Your task to perform on an android device: Open my contact list Image 0: 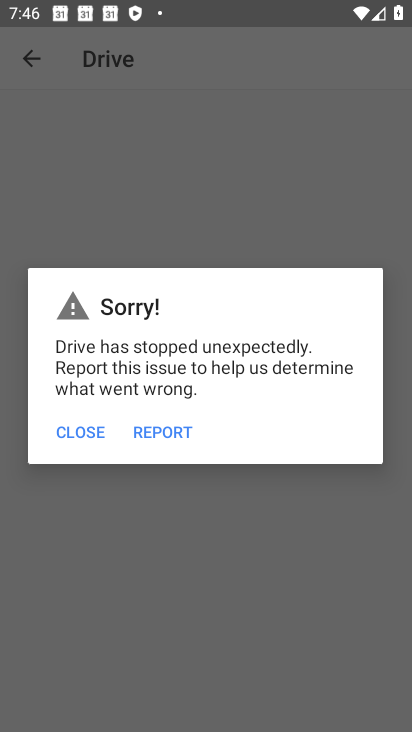
Step 0: press home button
Your task to perform on an android device: Open my contact list Image 1: 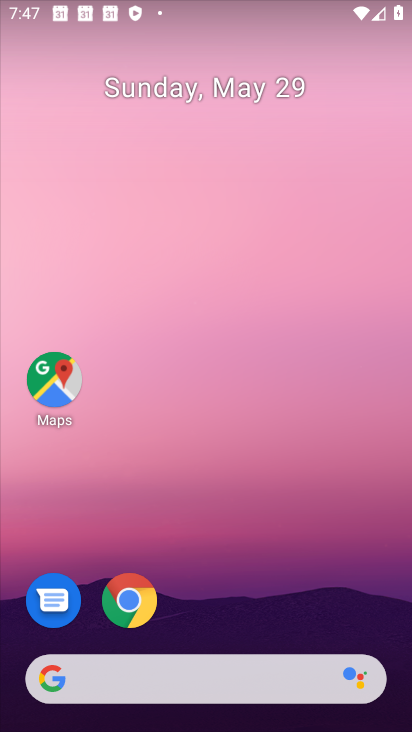
Step 1: drag from (290, 549) to (343, 166)
Your task to perform on an android device: Open my contact list Image 2: 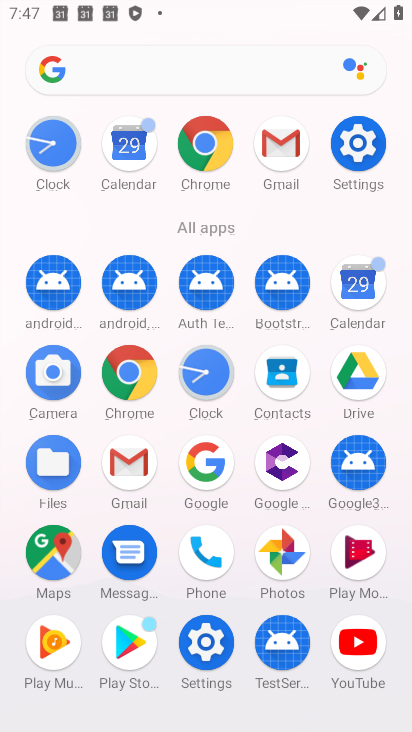
Step 2: click (275, 388)
Your task to perform on an android device: Open my contact list Image 3: 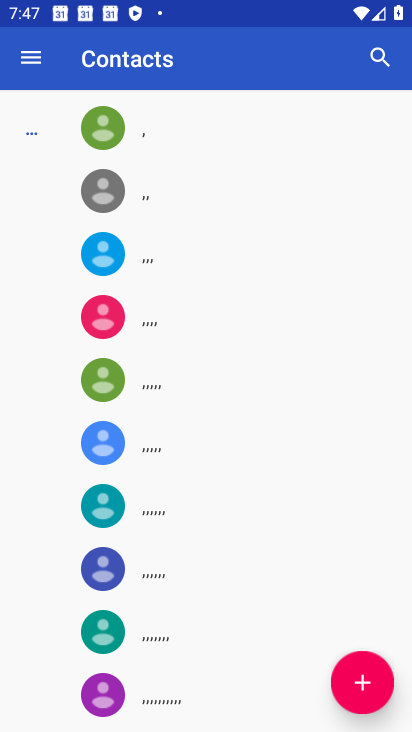
Step 3: task complete